Your task to perform on an android device: add a contact Image 0: 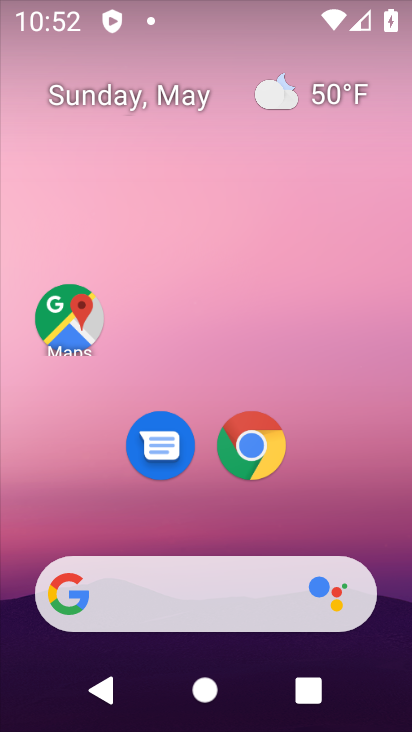
Step 0: drag from (264, 541) to (342, 5)
Your task to perform on an android device: add a contact Image 1: 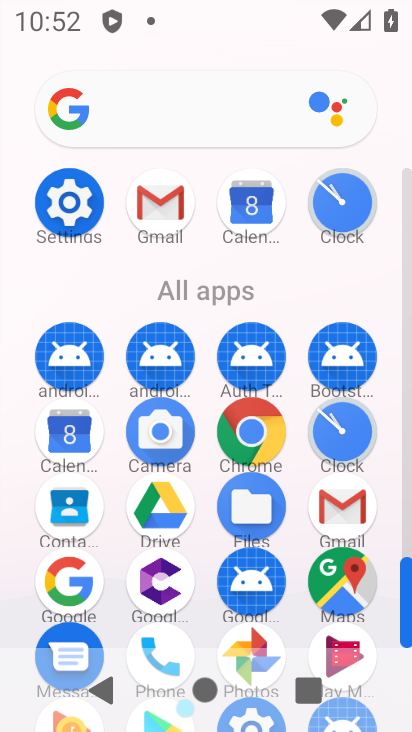
Step 1: click (68, 514)
Your task to perform on an android device: add a contact Image 2: 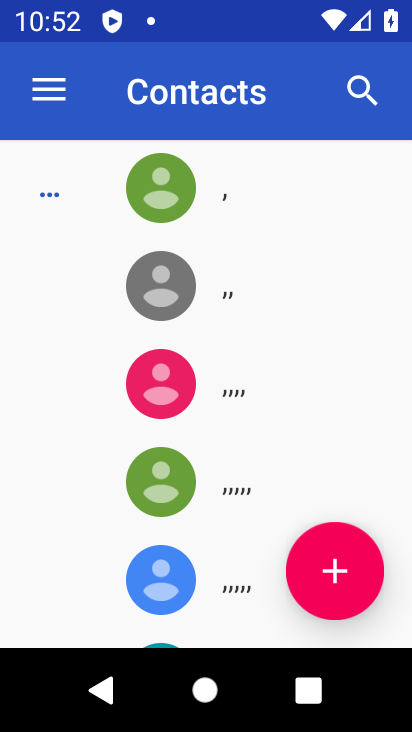
Step 2: click (336, 592)
Your task to perform on an android device: add a contact Image 3: 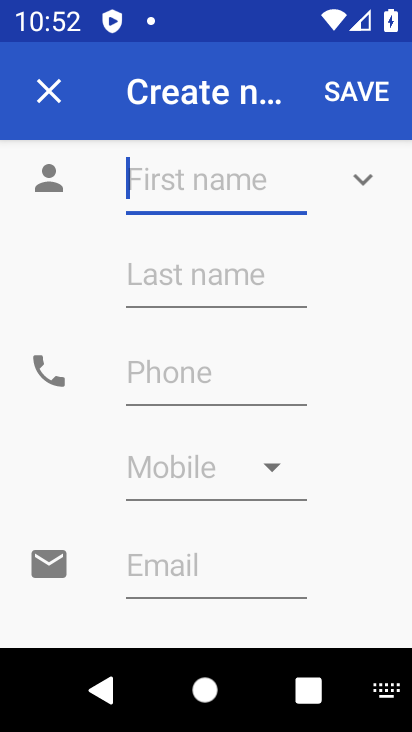
Step 3: type "froud"
Your task to perform on an android device: add a contact Image 4: 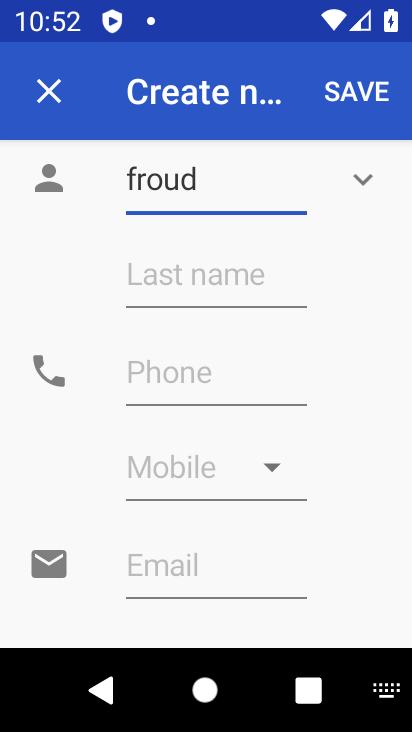
Step 4: click (376, 88)
Your task to perform on an android device: add a contact Image 5: 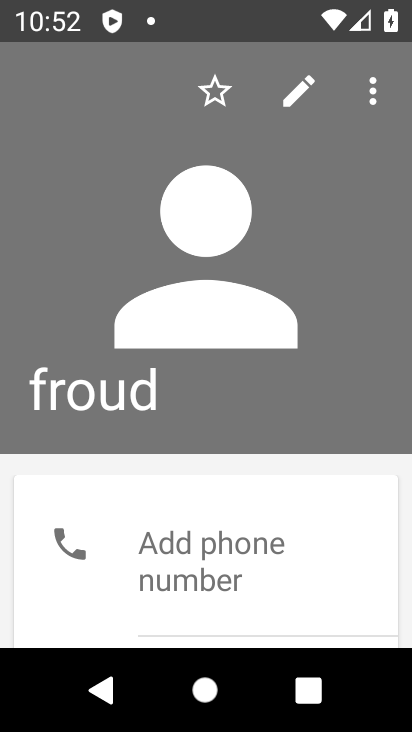
Step 5: task complete